Your task to perform on an android device: Go to settings Image 0: 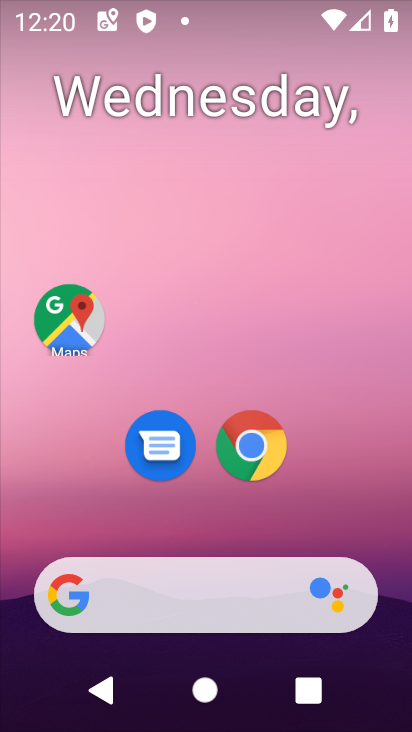
Step 0: drag from (337, 452) to (345, 72)
Your task to perform on an android device: Go to settings Image 1: 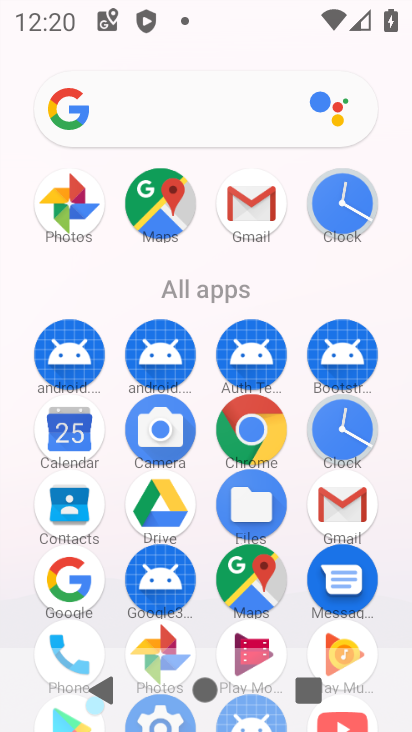
Step 1: drag from (293, 595) to (357, 130)
Your task to perform on an android device: Go to settings Image 2: 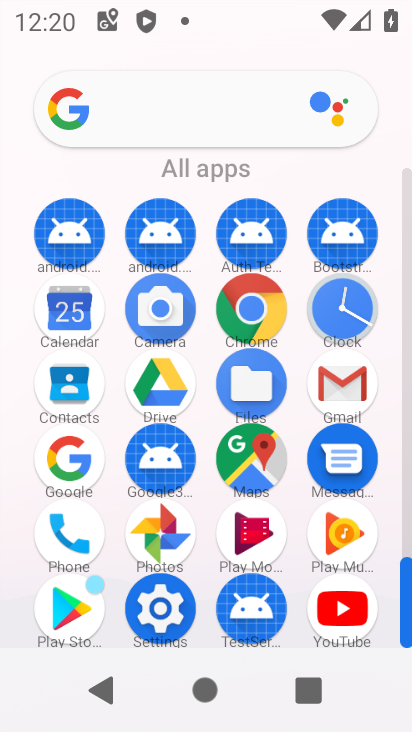
Step 2: click (154, 623)
Your task to perform on an android device: Go to settings Image 3: 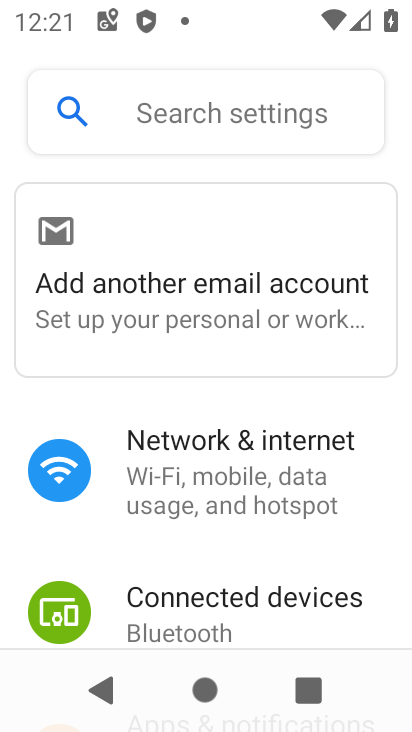
Step 3: task complete